Your task to perform on an android device: Add alienware aurora to the cart on walmart, then select checkout. Image 0: 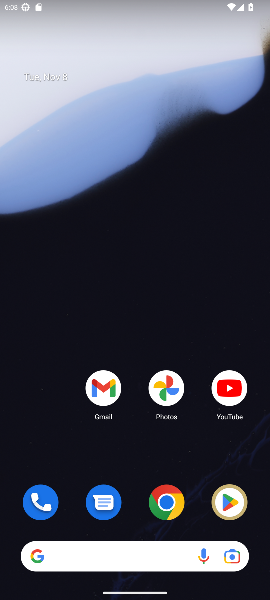
Step 0: drag from (114, 575) to (121, 131)
Your task to perform on an android device: Add alienware aurora to the cart on walmart, then select checkout. Image 1: 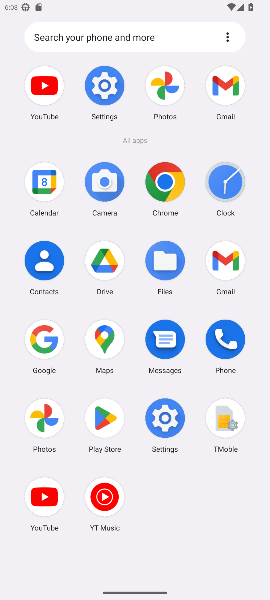
Step 1: click (37, 329)
Your task to perform on an android device: Add alienware aurora to the cart on walmart, then select checkout. Image 2: 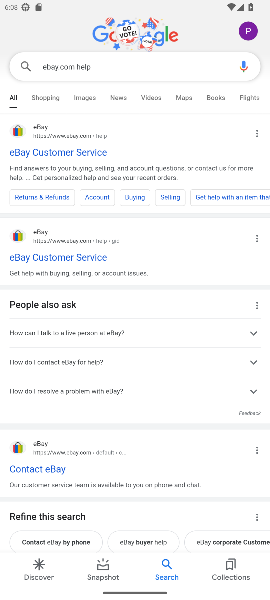
Step 2: click (137, 57)
Your task to perform on an android device: Add alienware aurora to the cart on walmart, then select checkout. Image 3: 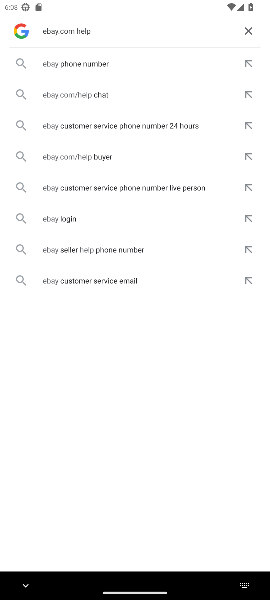
Step 3: click (249, 36)
Your task to perform on an android device: Add alienware aurora to the cart on walmart, then select checkout. Image 4: 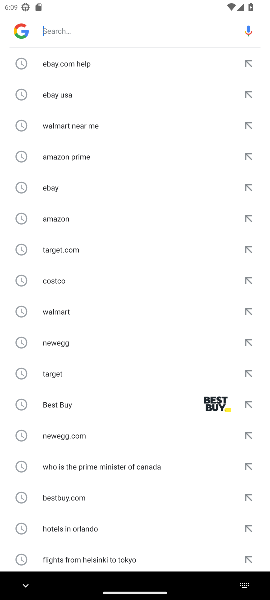
Step 4: click (59, 26)
Your task to perform on an android device: Add alienware aurora to the cart on walmart, then select checkout. Image 5: 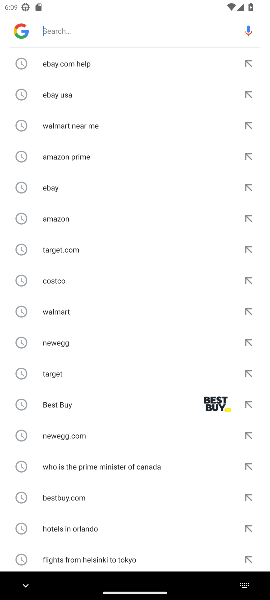
Step 5: type "walmart "
Your task to perform on an android device: Add alienware aurora to the cart on walmart, then select checkout. Image 6: 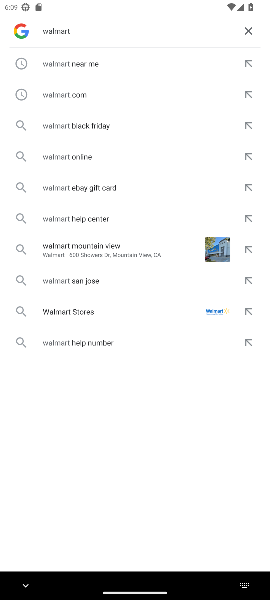
Step 6: click (79, 63)
Your task to perform on an android device: Add alienware aurora to the cart on walmart, then select checkout. Image 7: 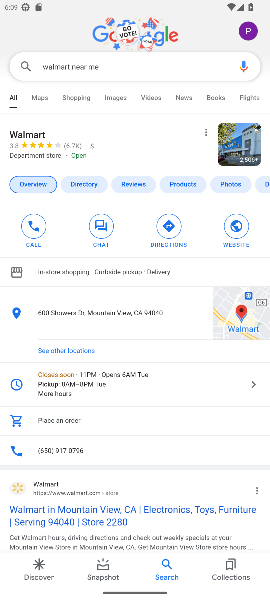
Step 7: drag from (54, 512) to (74, 395)
Your task to perform on an android device: Add alienware aurora to the cart on walmart, then select checkout. Image 8: 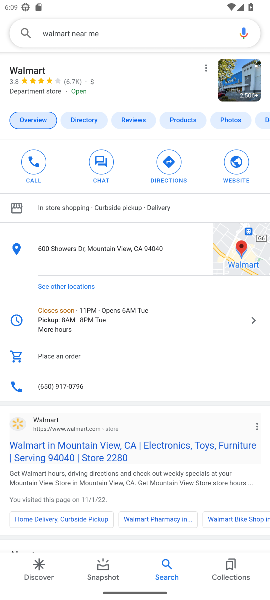
Step 8: drag from (85, 336) to (88, 309)
Your task to perform on an android device: Add alienware aurora to the cart on walmart, then select checkout. Image 9: 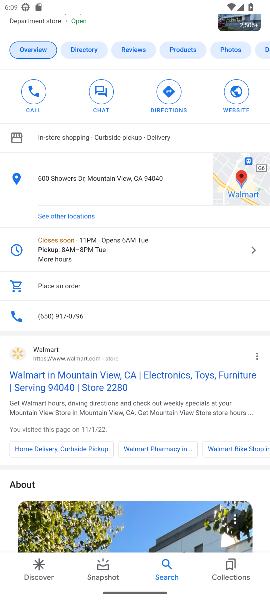
Step 9: click (14, 352)
Your task to perform on an android device: Add alienware aurora to the cart on walmart, then select checkout. Image 10: 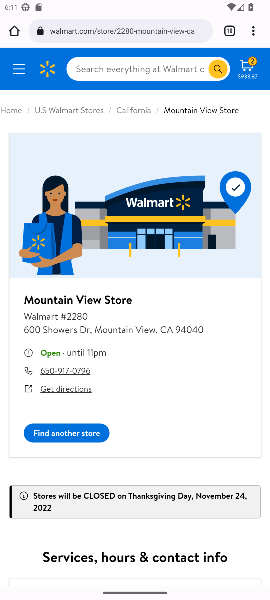
Step 10: click (134, 65)
Your task to perform on an android device: Add alienware aurora to the cart on walmart, then select checkout. Image 11: 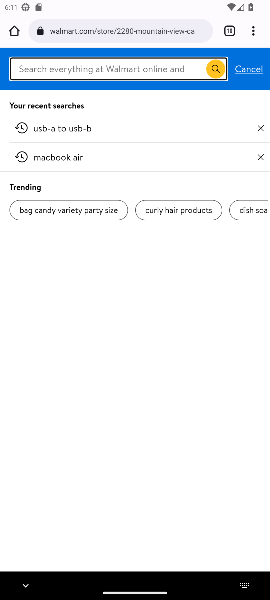
Step 11: type "alienware aurora "
Your task to perform on an android device: Add alienware aurora to the cart on walmart, then select checkout. Image 12: 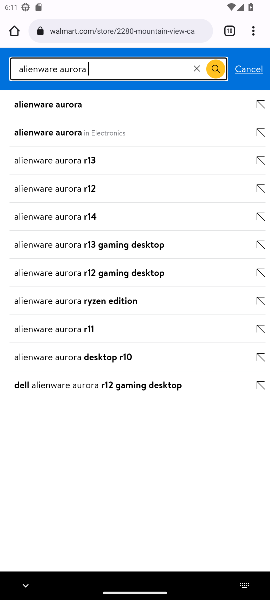
Step 12: click (105, 110)
Your task to perform on an android device: Add alienware aurora to the cart on walmart, then select checkout. Image 13: 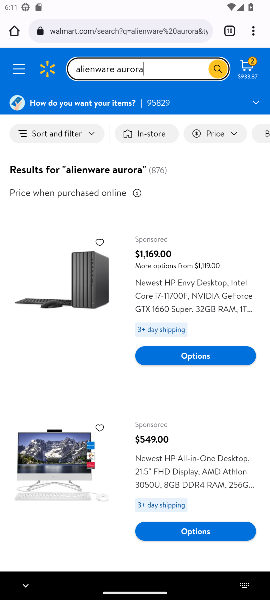
Step 13: click (219, 67)
Your task to perform on an android device: Add alienware aurora to the cart on walmart, then select checkout. Image 14: 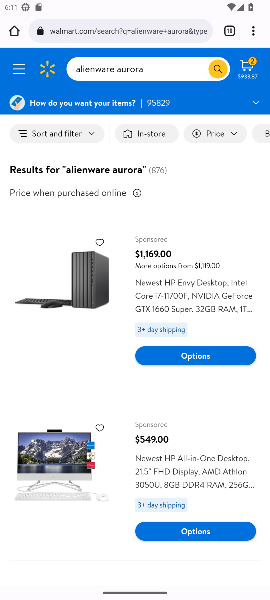
Step 14: drag from (119, 521) to (123, 287)
Your task to perform on an android device: Add alienware aurora to the cart on walmart, then select checkout. Image 15: 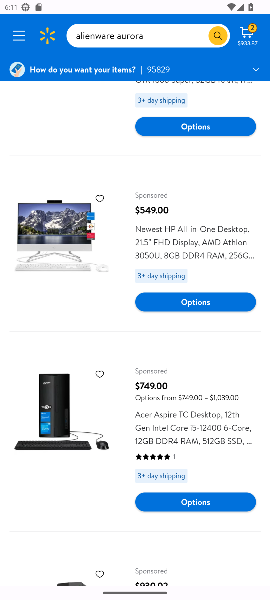
Step 15: drag from (138, 563) to (157, 334)
Your task to perform on an android device: Add alienware aurora to the cart on walmart, then select checkout. Image 16: 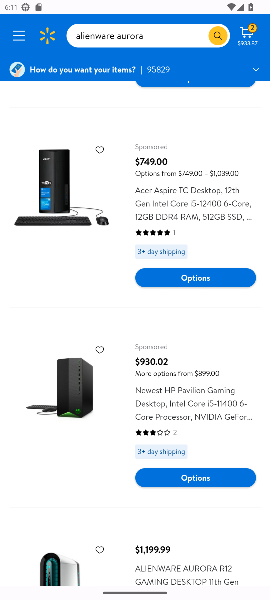
Step 16: drag from (120, 569) to (127, 344)
Your task to perform on an android device: Add alienware aurora to the cart on walmart, then select checkout. Image 17: 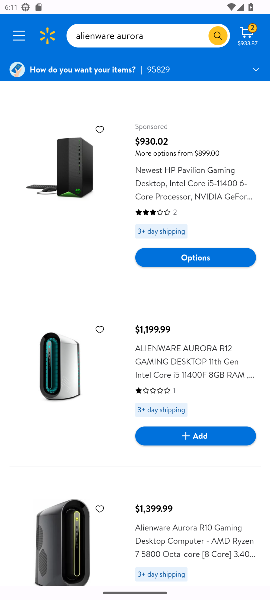
Step 17: click (197, 434)
Your task to perform on an android device: Add alienware aurora to the cart on walmart, then select checkout. Image 18: 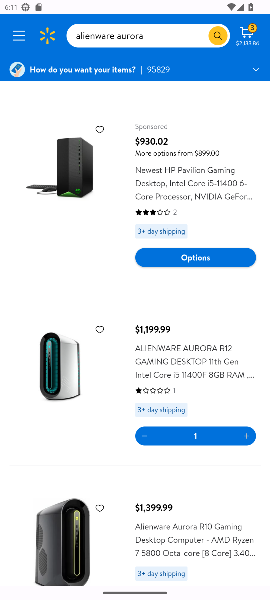
Step 18: task complete